Your task to perform on an android device: Go to Android settings Image 0: 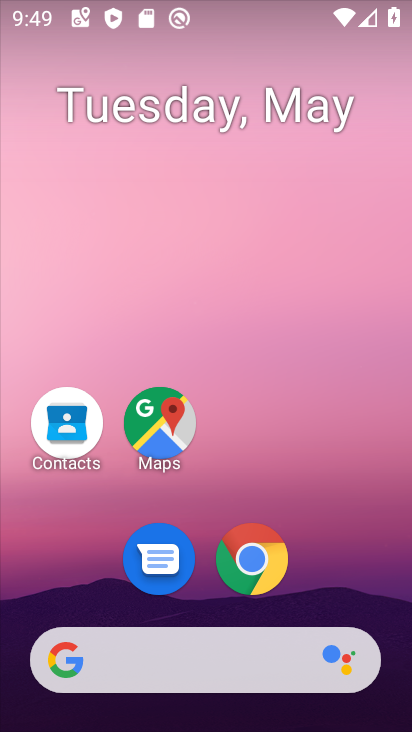
Step 0: drag from (366, 569) to (269, 122)
Your task to perform on an android device: Go to Android settings Image 1: 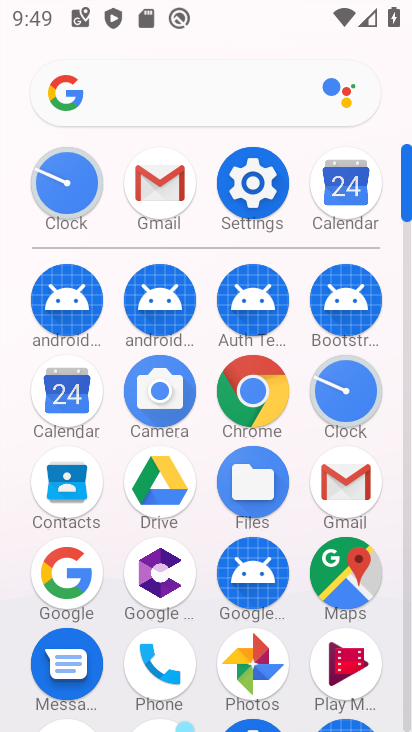
Step 1: click (221, 164)
Your task to perform on an android device: Go to Android settings Image 2: 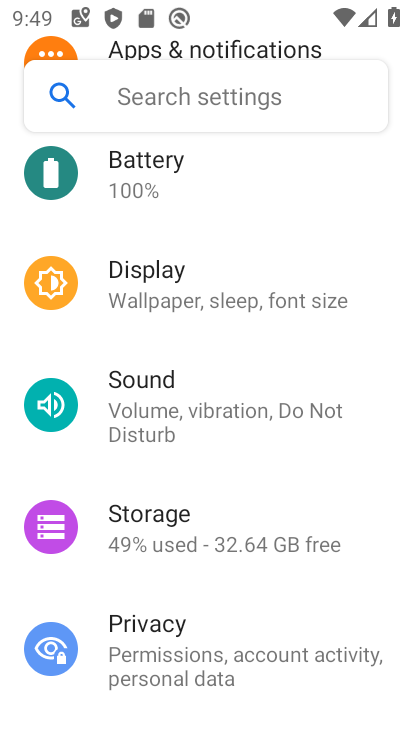
Step 2: task complete